Your task to perform on an android device: toggle pop-ups in chrome Image 0: 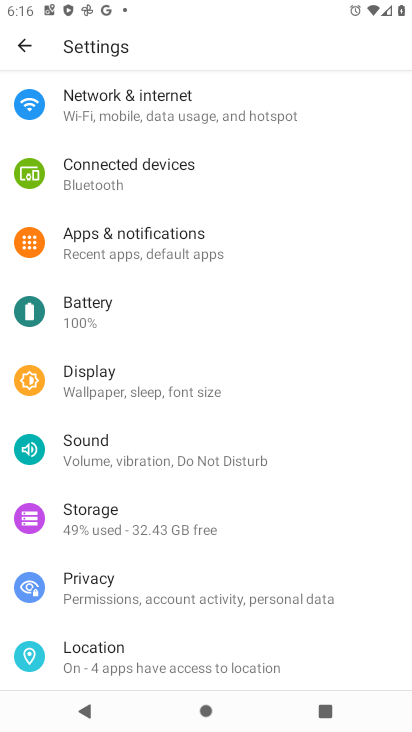
Step 0: press home button
Your task to perform on an android device: toggle pop-ups in chrome Image 1: 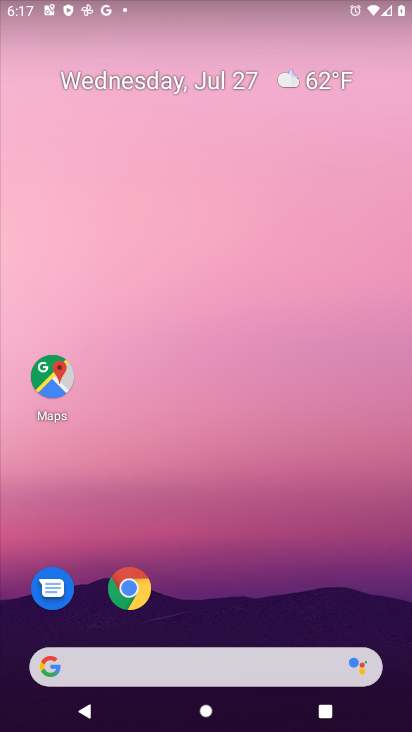
Step 1: click (124, 596)
Your task to perform on an android device: toggle pop-ups in chrome Image 2: 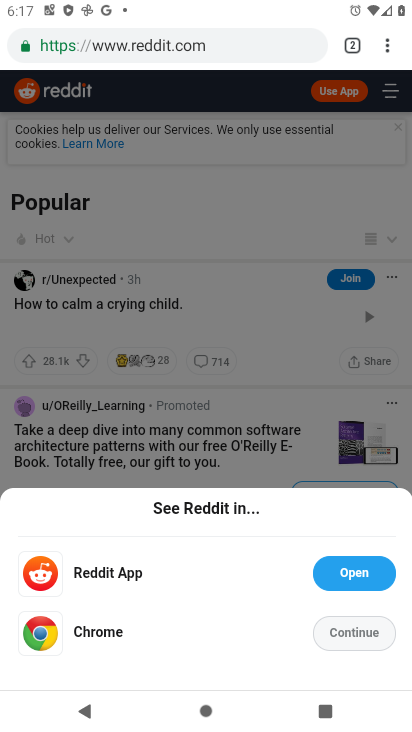
Step 2: click (387, 48)
Your task to perform on an android device: toggle pop-ups in chrome Image 3: 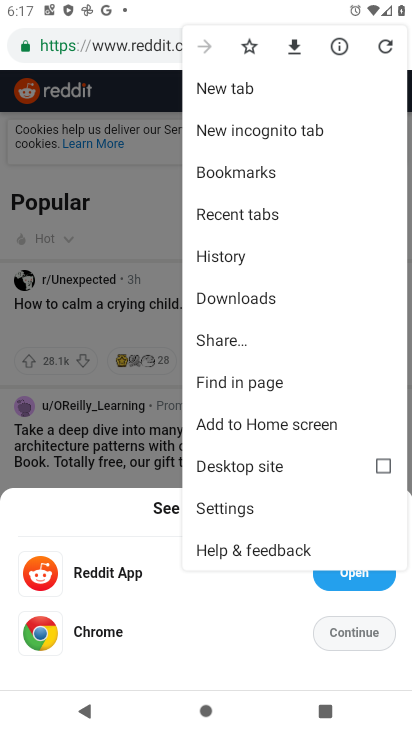
Step 3: click (213, 503)
Your task to perform on an android device: toggle pop-ups in chrome Image 4: 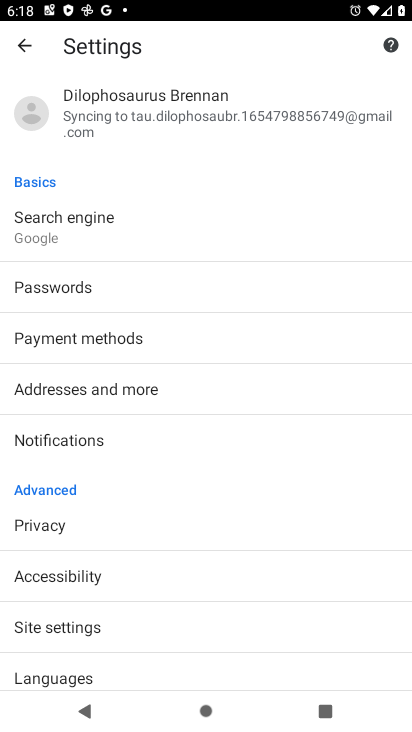
Step 4: click (57, 621)
Your task to perform on an android device: toggle pop-ups in chrome Image 5: 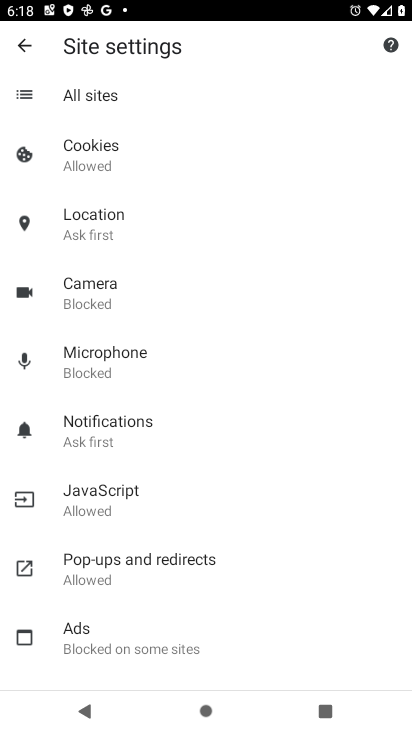
Step 5: click (133, 571)
Your task to perform on an android device: toggle pop-ups in chrome Image 6: 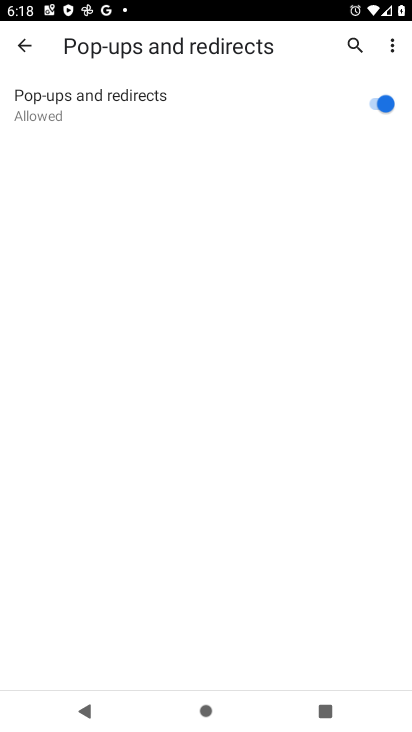
Step 6: click (373, 103)
Your task to perform on an android device: toggle pop-ups in chrome Image 7: 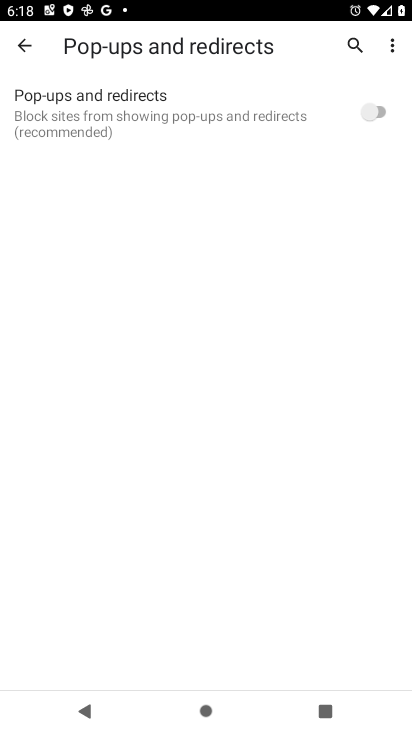
Step 7: task complete